Your task to perform on an android device: Go to privacy settings Image 0: 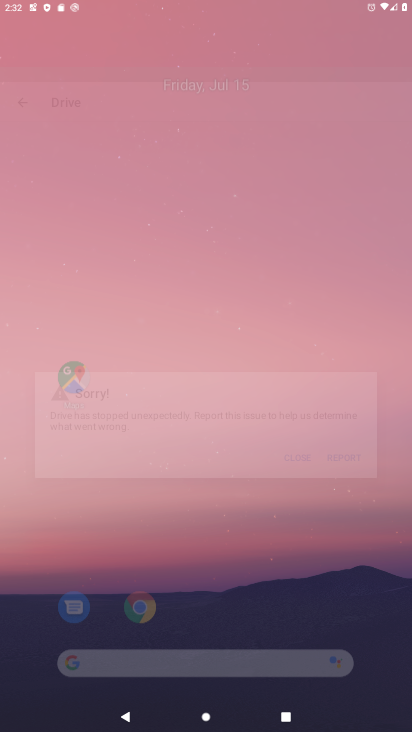
Step 0: click (83, 589)
Your task to perform on an android device: Go to privacy settings Image 1: 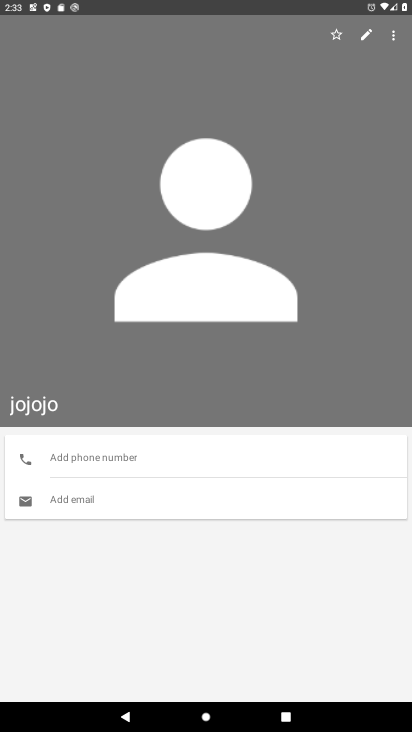
Step 1: press home button
Your task to perform on an android device: Go to privacy settings Image 2: 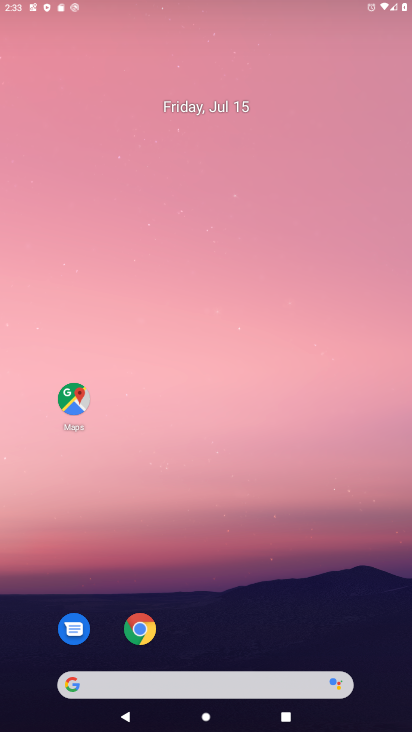
Step 2: drag from (254, 547) to (258, 83)
Your task to perform on an android device: Go to privacy settings Image 3: 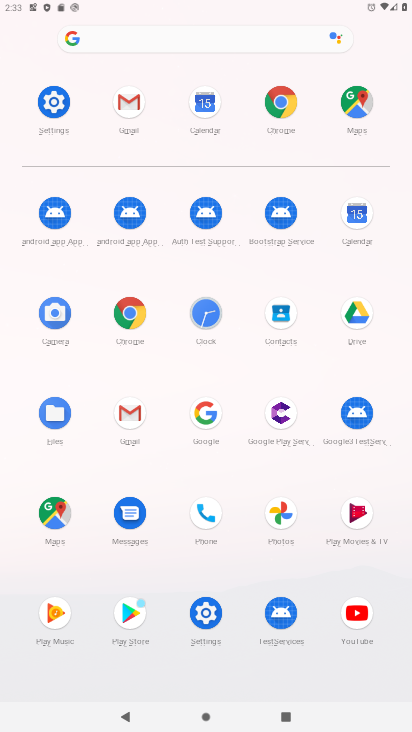
Step 3: click (55, 100)
Your task to perform on an android device: Go to privacy settings Image 4: 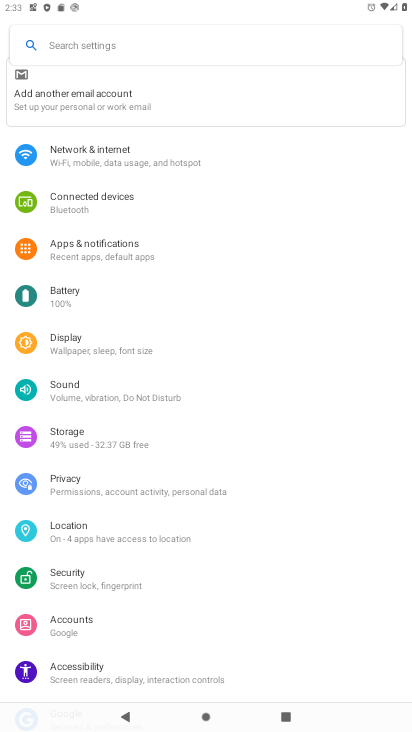
Step 4: click (80, 493)
Your task to perform on an android device: Go to privacy settings Image 5: 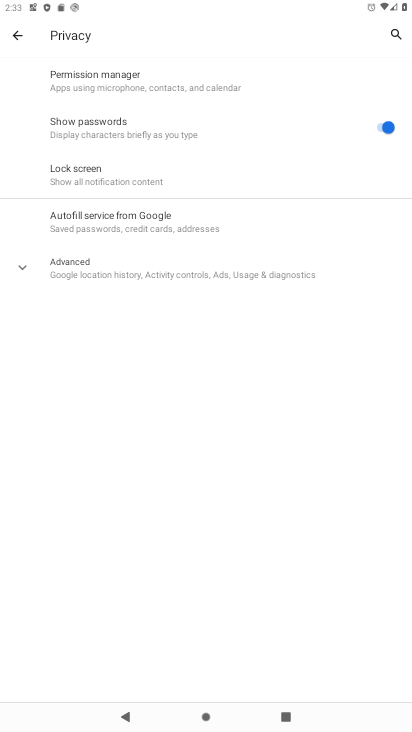
Step 5: task complete